Your task to perform on an android device: Open Google Maps Image 0: 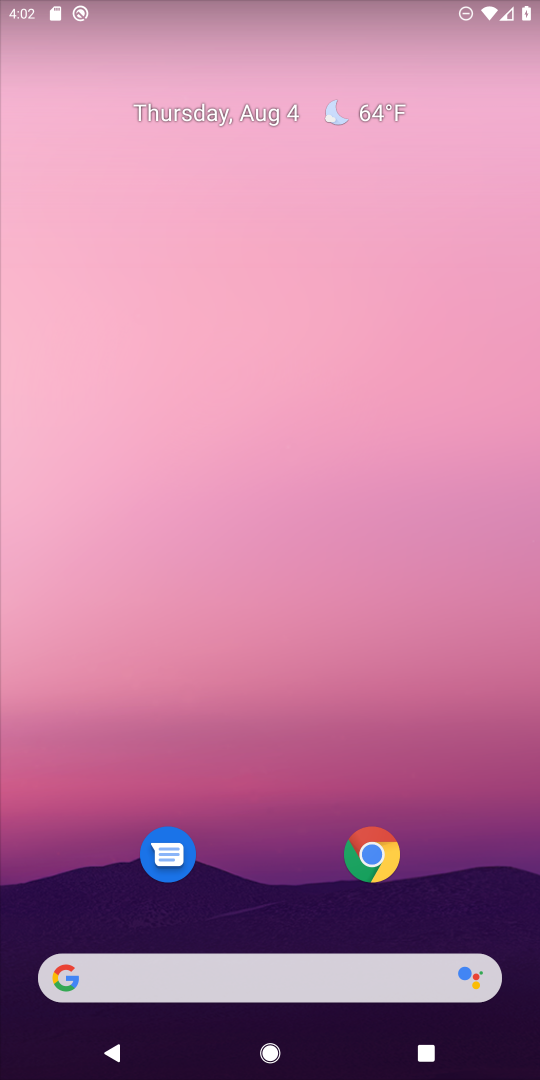
Step 0: drag from (245, 632) to (196, 112)
Your task to perform on an android device: Open Google Maps Image 1: 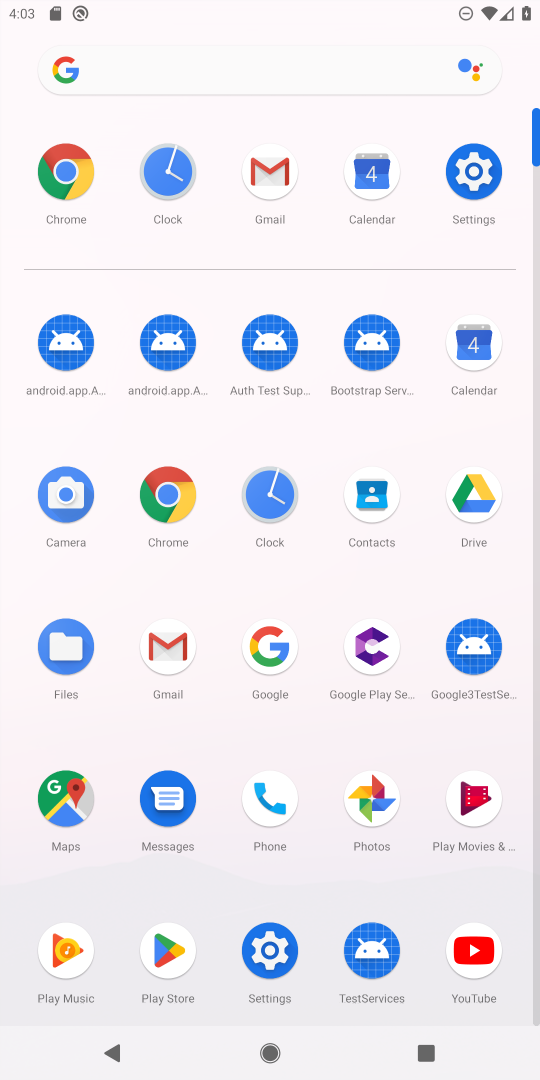
Step 1: click (60, 793)
Your task to perform on an android device: Open Google Maps Image 2: 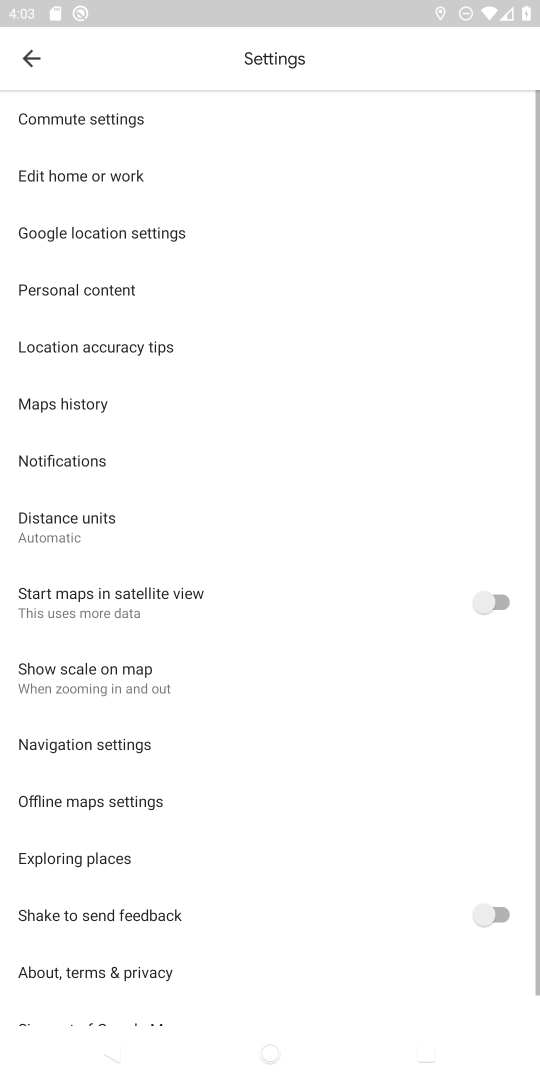
Step 2: click (23, 49)
Your task to perform on an android device: Open Google Maps Image 3: 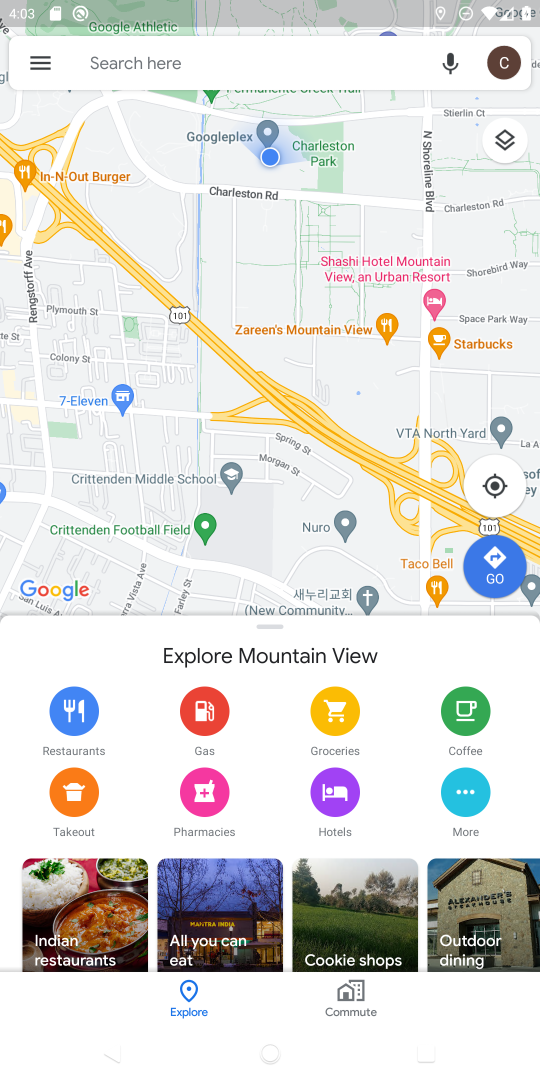
Step 3: task complete